Your task to perform on an android device: What's the weather going to be this weekend? Image 0: 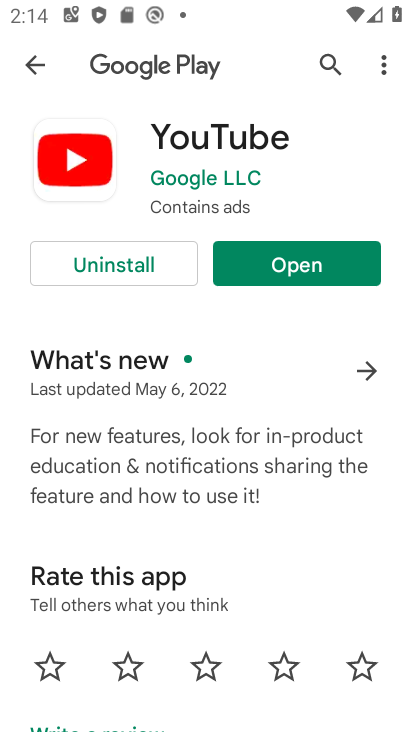
Step 0: press back button
Your task to perform on an android device: What's the weather going to be this weekend? Image 1: 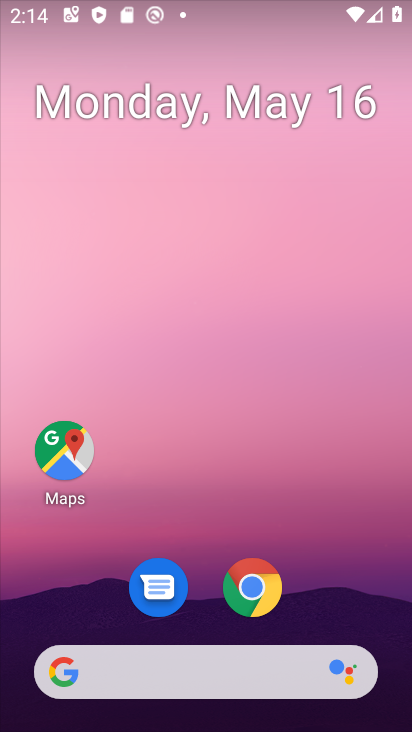
Step 1: drag from (236, 585) to (116, 407)
Your task to perform on an android device: What's the weather going to be this weekend? Image 2: 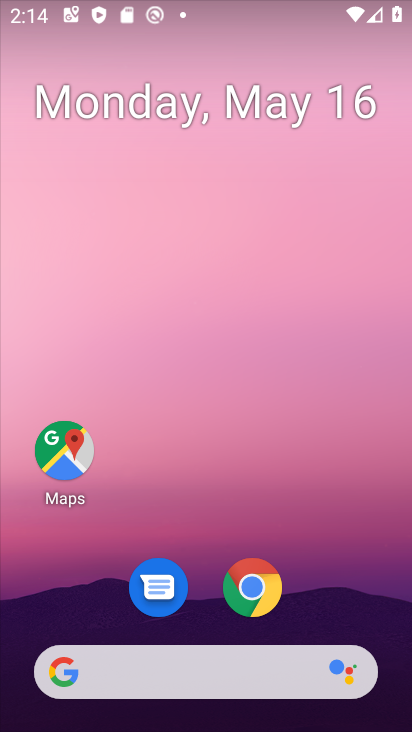
Step 2: click (109, 203)
Your task to perform on an android device: What's the weather going to be this weekend? Image 3: 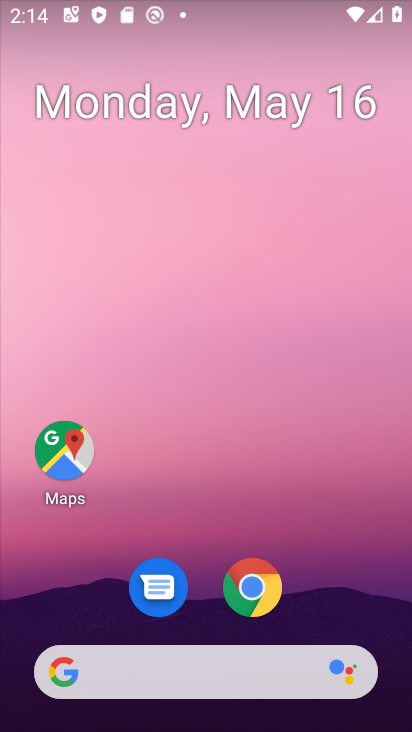
Step 3: drag from (305, 563) to (131, 227)
Your task to perform on an android device: What's the weather going to be this weekend? Image 4: 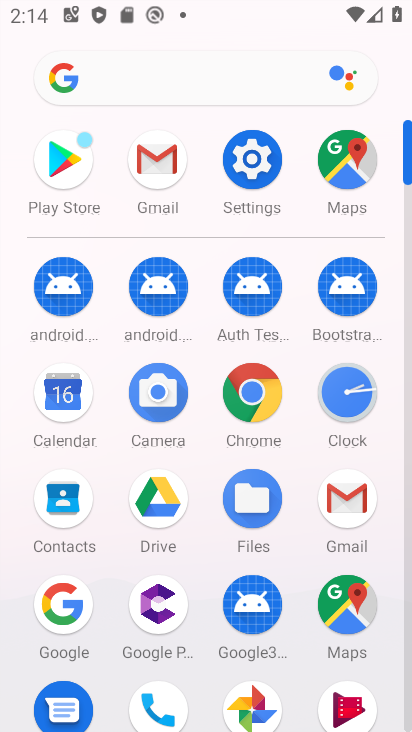
Step 4: press back button
Your task to perform on an android device: What's the weather going to be this weekend? Image 5: 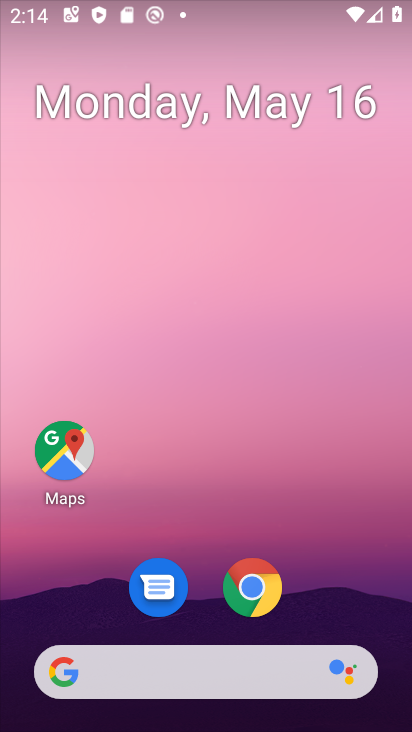
Step 5: drag from (22, 253) to (408, 292)
Your task to perform on an android device: What's the weather going to be this weekend? Image 6: 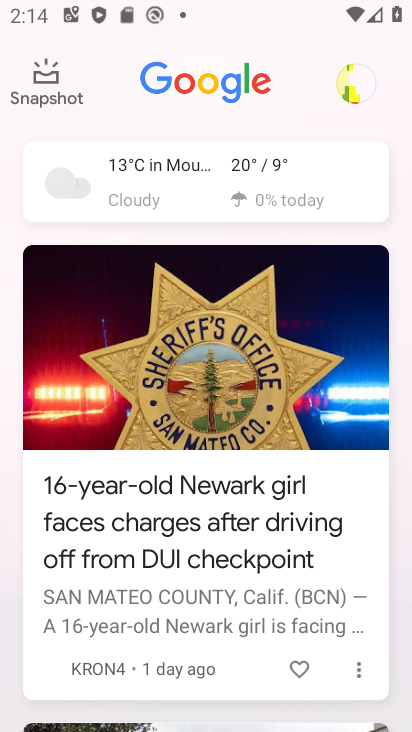
Step 6: click (135, 183)
Your task to perform on an android device: What's the weather going to be this weekend? Image 7: 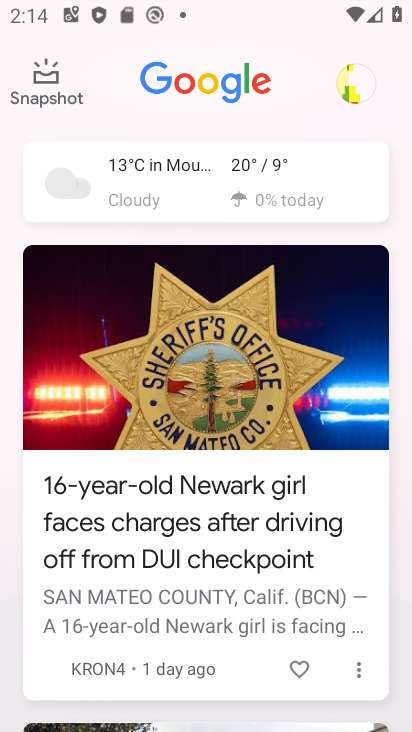
Step 7: click (136, 183)
Your task to perform on an android device: What's the weather going to be this weekend? Image 8: 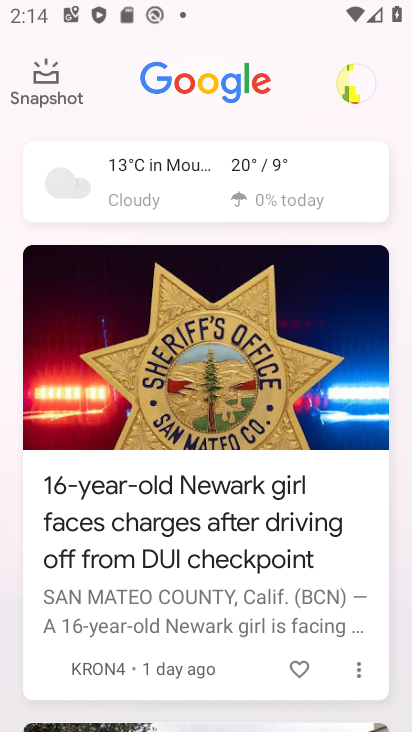
Step 8: click (137, 184)
Your task to perform on an android device: What's the weather going to be this weekend? Image 9: 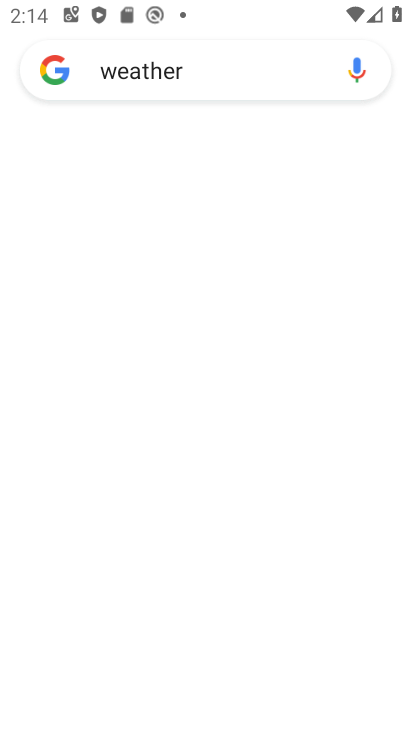
Step 9: click (137, 184)
Your task to perform on an android device: What's the weather going to be this weekend? Image 10: 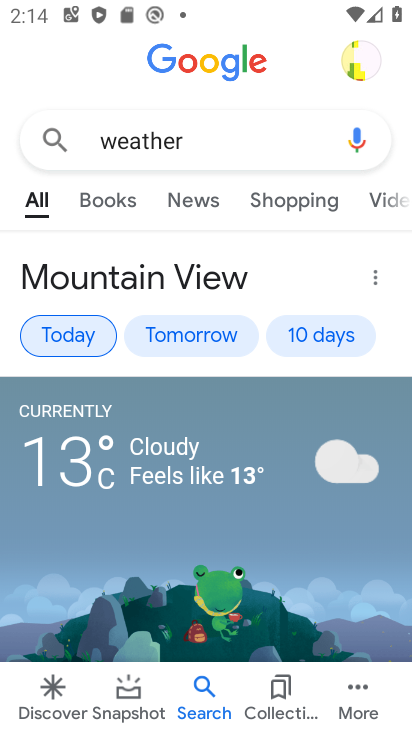
Step 10: click (171, 335)
Your task to perform on an android device: What's the weather going to be this weekend? Image 11: 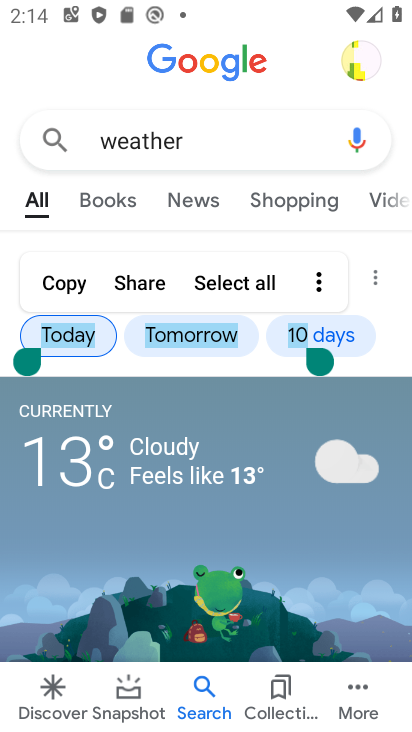
Step 11: click (304, 325)
Your task to perform on an android device: What's the weather going to be this weekend? Image 12: 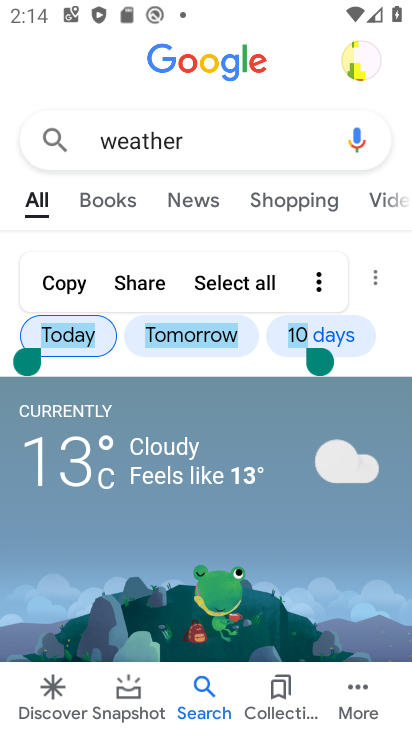
Step 12: click (338, 331)
Your task to perform on an android device: What's the weather going to be this weekend? Image 13: 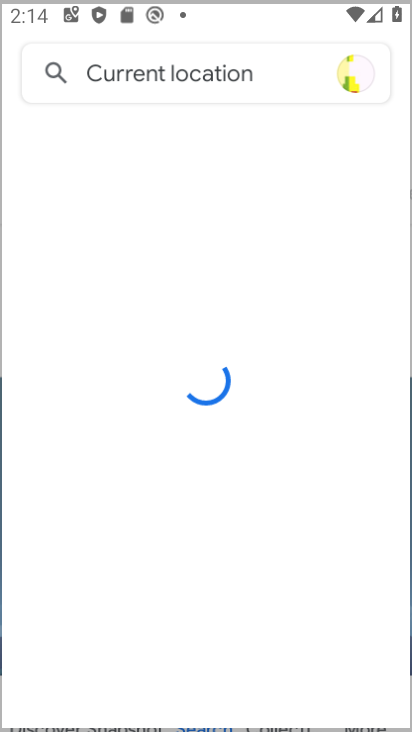
Step 13: click (338, 331)
Your task to perform on an android device: What's the weather going to be this weekend? Image 14: 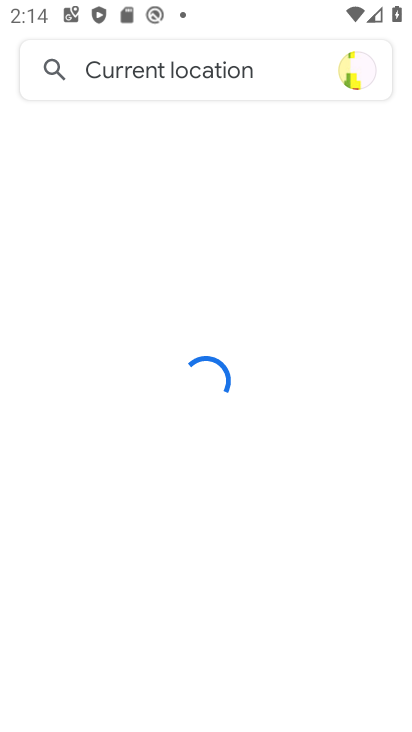
Step 14: click (338, 331)
Your task to perform on an android device: What's the weather going to be this weekend? Image 15: 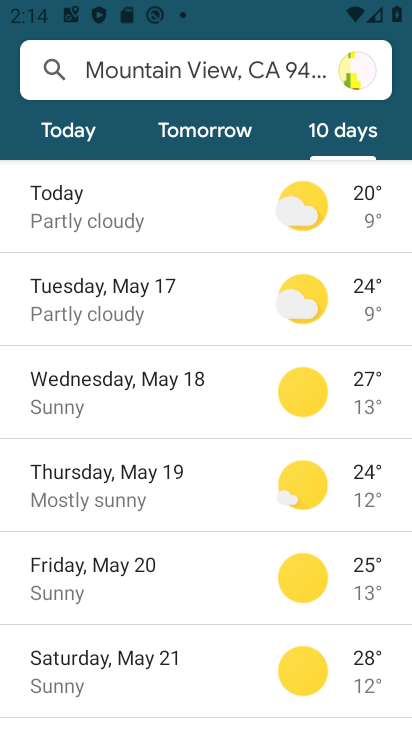
Step 15: task complete